Your task to perform on an android device: uninstall "Paramount+ | Peak Streaming" Image 0: 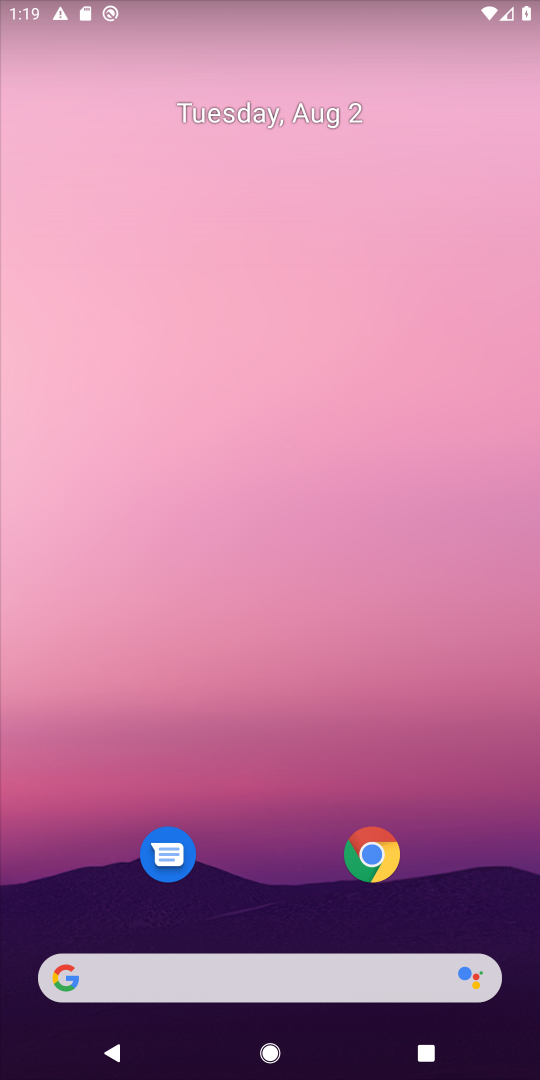
Step 0: drag from (300, 1063) to (370, 328)
Your task to perform on an android device: uninstall "Paramount+ | Peak Streaming" Image 1: 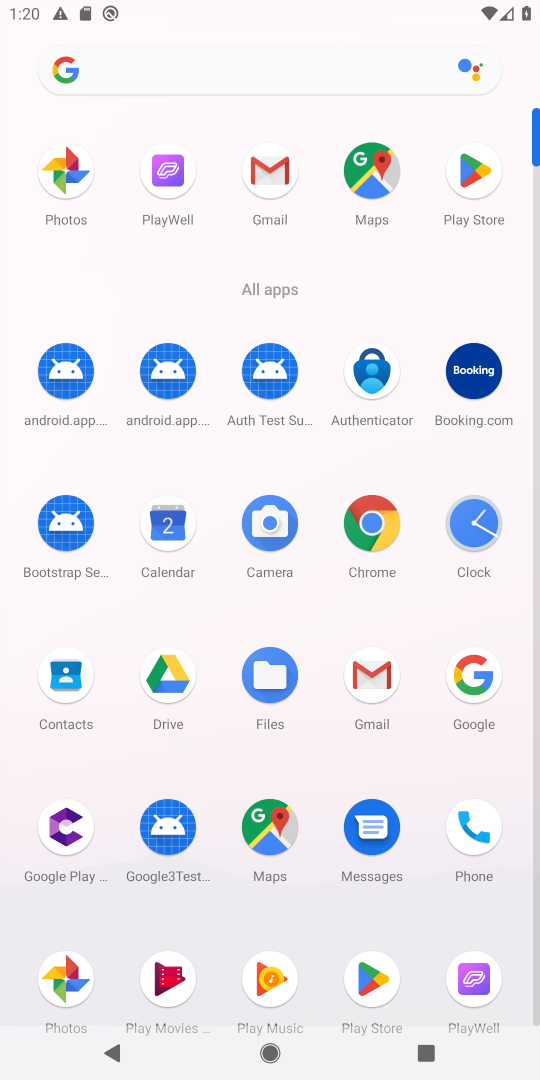
Step 1: click (475, 168)
Your task to perform on an android device: uninstall "Paramount+ | Peak Streaming" Image 2: 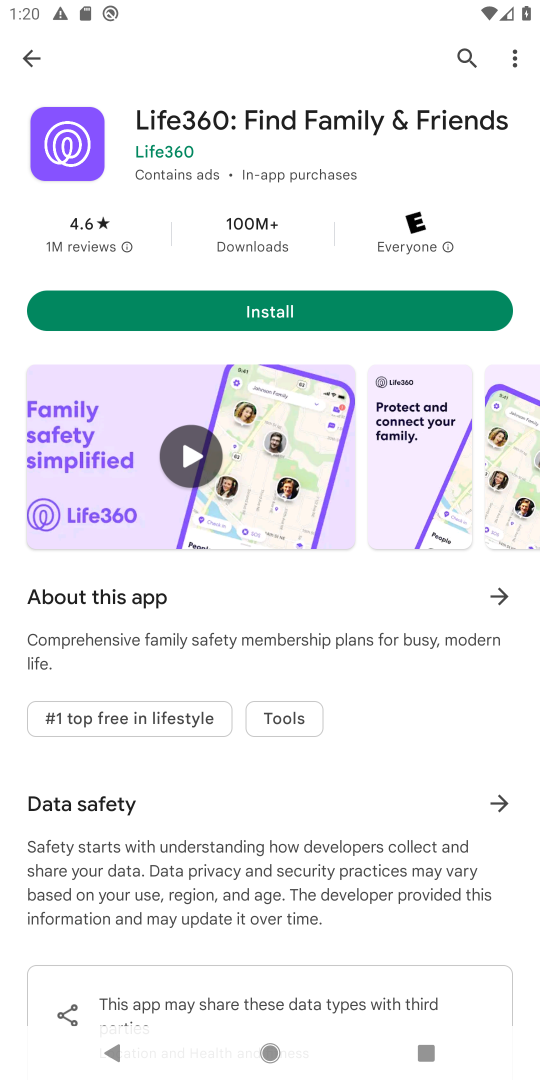
Step 2: click (465, 57)
Your task to perform on an android device: uninstall "Paramount+ | Peak Streaming" Image 3: 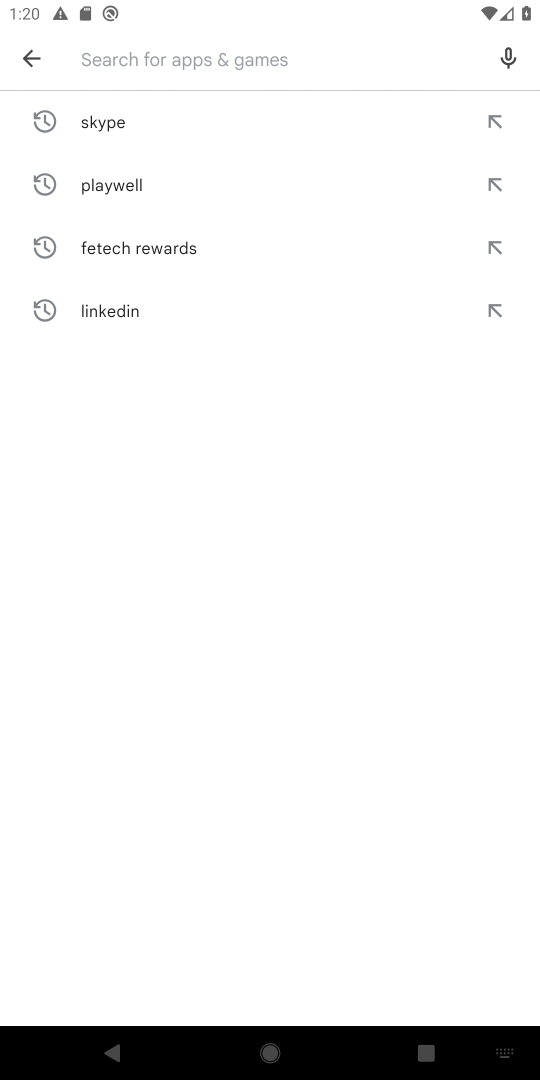
Step 3: type "Paramount+ | Peak Streaming"
Your task to perform on an android device: uninstall "Paramount+ | Peak Streaming" Image 4: 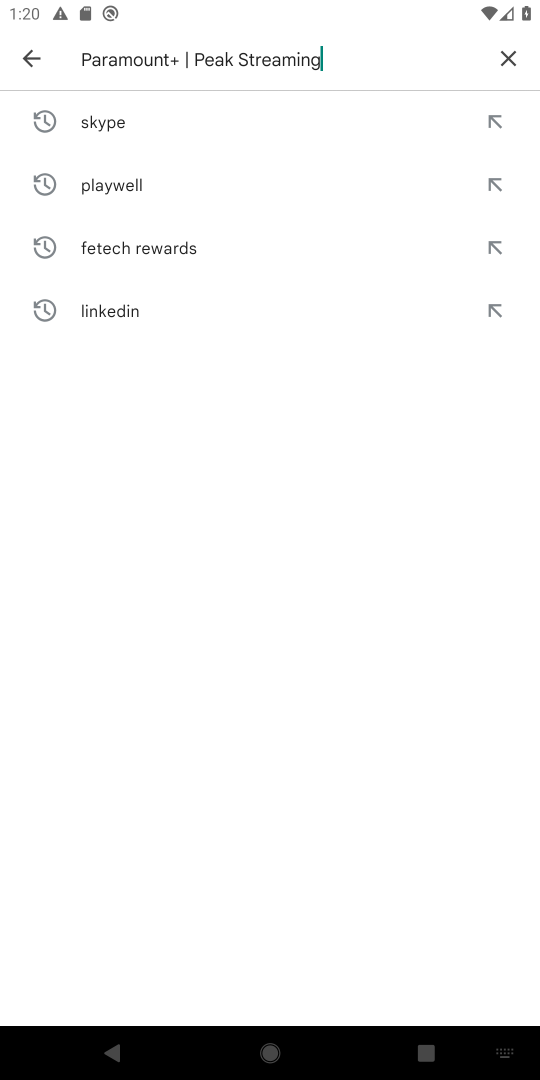
Step 4: type ""
Your task to perform on an android device: uninstall "Paramount+ | Peak Streaming" Image 5: 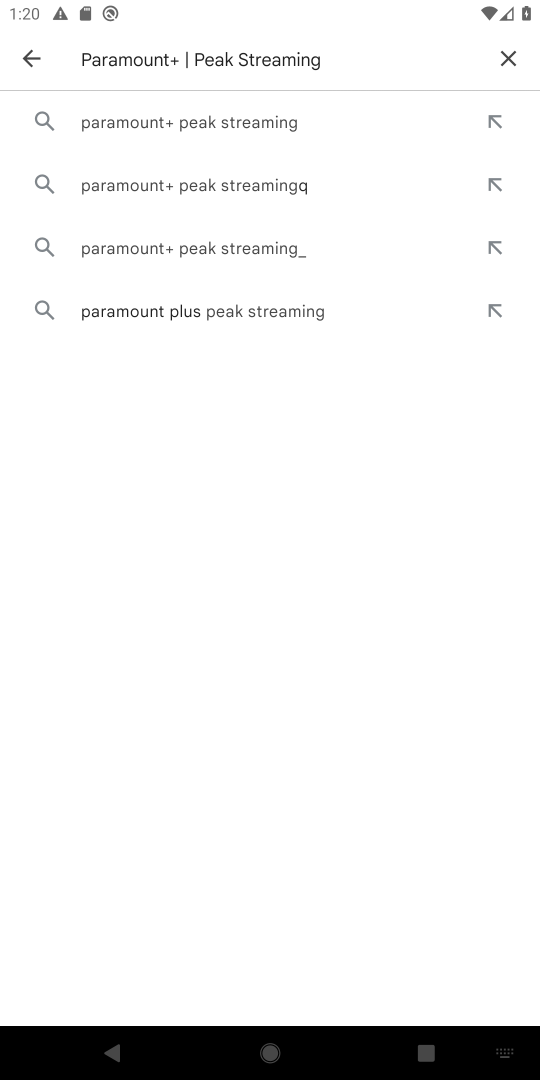
Step 5: click (258, 122)
Your task to perform on an android device: uninstall "Paramount+ | Peak Streaming" Image 6: 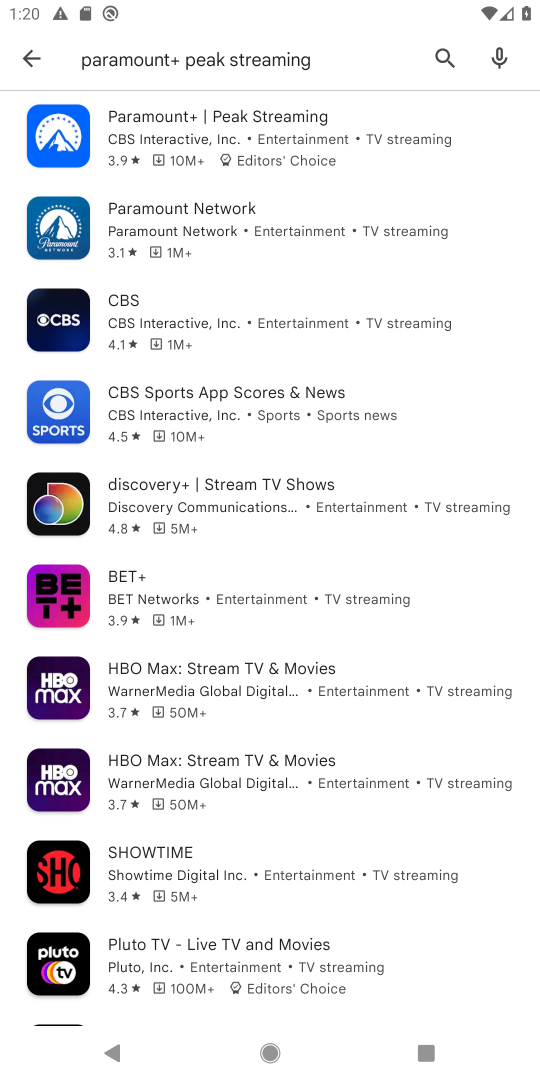
Step 6: click (258, 128)
Your task to perform on an android device: uninstall "Paramount+ | Peak Streaming" Image 7: 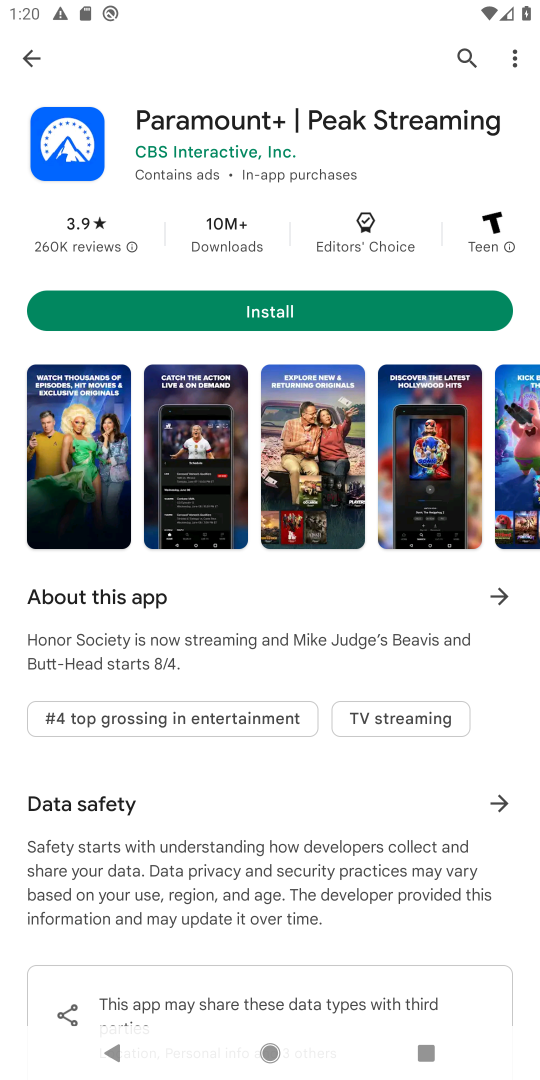
Step 7: task complete